Your task to perform on an android device: turn off picture-in-picture Image 0: 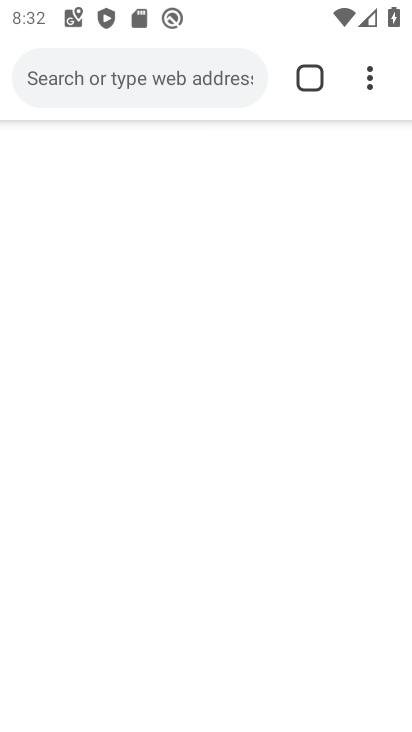
Step 0: drag from (397, 599) to (409, 687)
Your task to perform on an android device: turn off picture-in-picture Image 1: 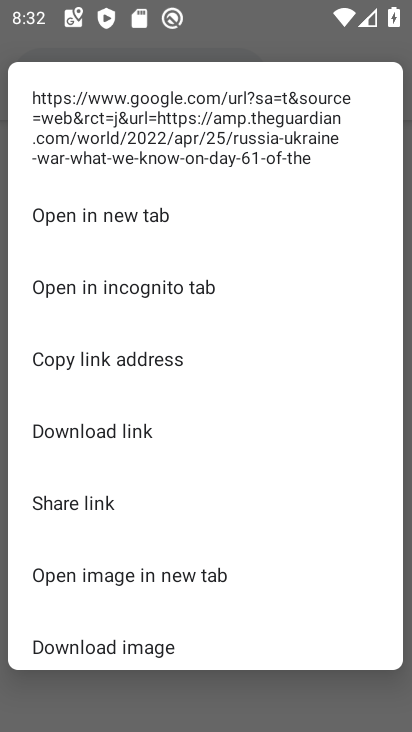
Step 1: press home button
Your task to perform on an android device: turn off picture-in-picture Image 2: 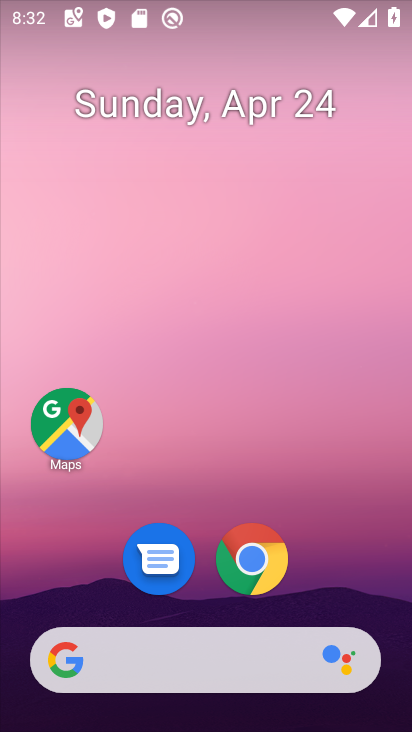
Step 2: click (277, 567)
Your task to perform on an android device: turn off picture-in-picture Image 3: 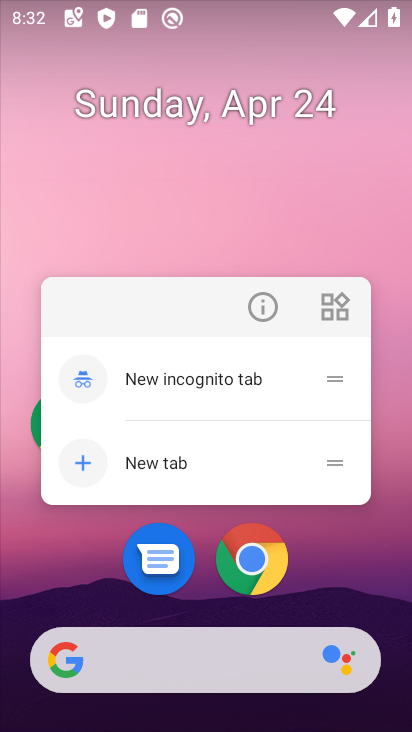
Step 3: click (267, 296)
Your task to perform on an android device: turn off picture-in-picture Image 4: 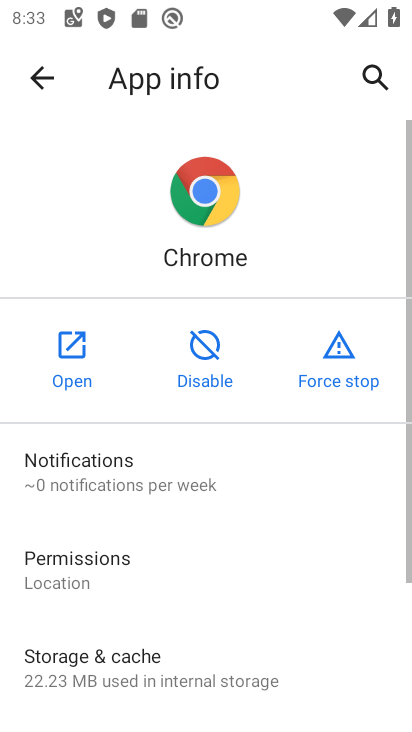
Step 4: drag from (202, 684) to (180, 132)
Your task to perform on an android device: turn off picture-in-picture Image 5: 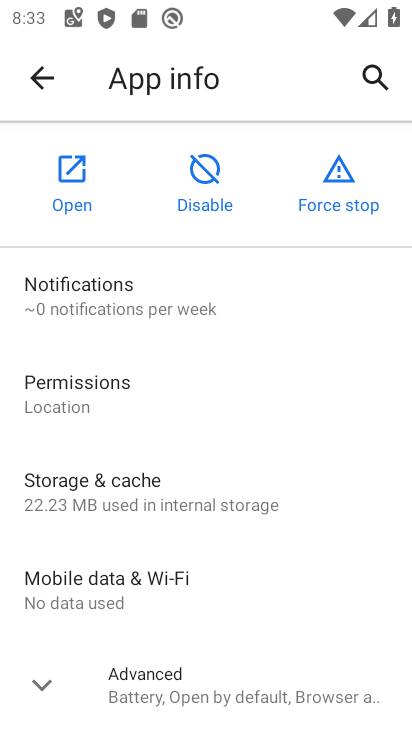
Step 5: click (162, 686)
Your task to perform on an android device: turn off picture-in-picture Image 6: 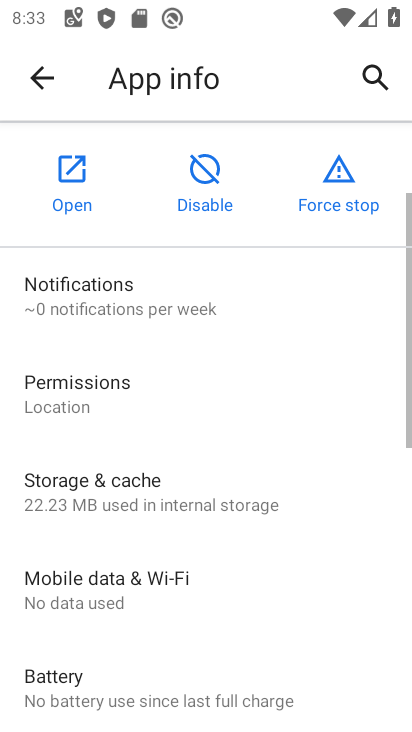
Step 6: drag from (162, 686) to (232, 281)
Your task to perform on an android device: turn off picture-in-picture Image 7: 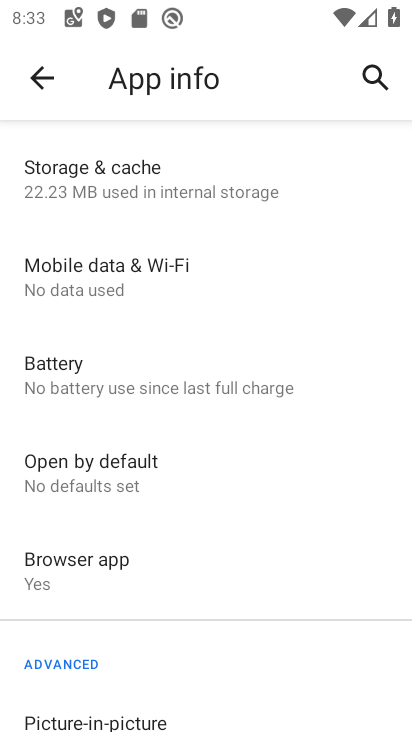
Step 7: drag from (209, 715) to (216, 411)
Your task to perform on an android device: turn off picture-in-picture Image 8: 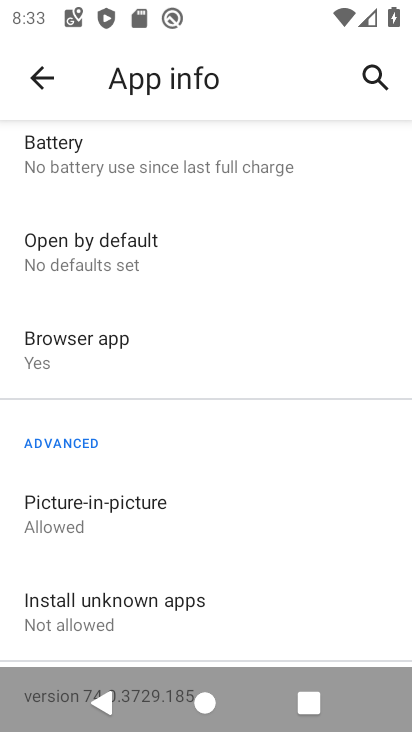
Step 8: click (206, 523)
Your task to perform on an android device: turn off picture-in-picture Image 9: 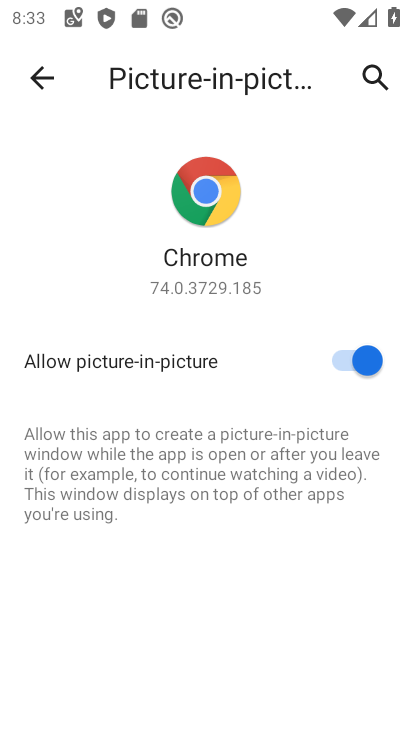
Step 9: click (366, 372)
Your task to perform on an android device: turn off picture-in-picture Image 10: 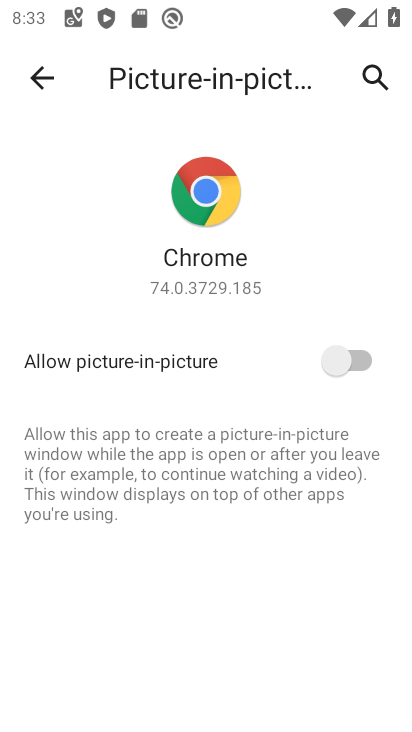
Step 10: task complete